Your task to perform on an android device: What time is it in Tokyo? Image 0: 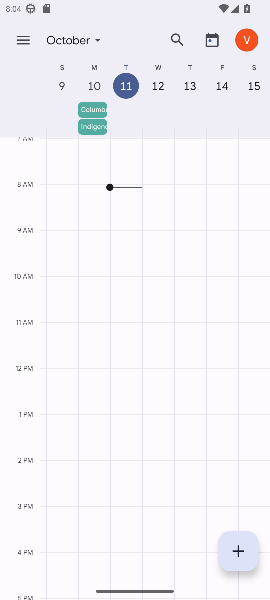
Step 0: press home button
Your task to perform on an android device: What time is it in Tokyo? Image 1: 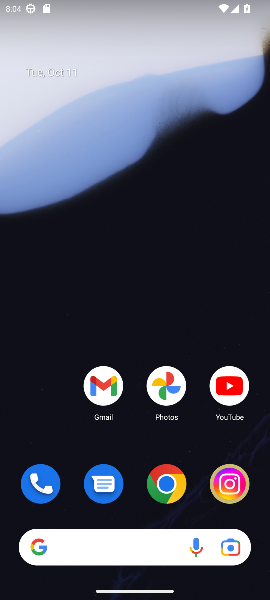
Step 1: click (170, 484)
Your task to perform on an android device: What time is it in Tokyo? Image 2: 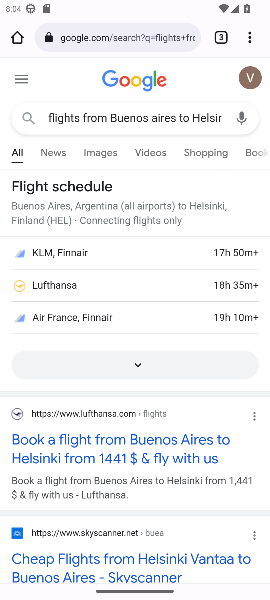
Step 2: click (176, 32)
Your task to perform on an android device: What time is it in Tokyo? Image 3: 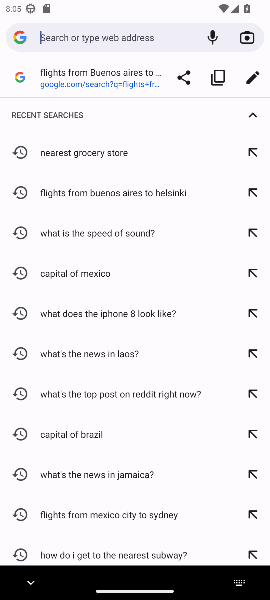
Step 3: click (134, 36)
Your task to perform on an android device: What time is it in Tokyo? Image 4: 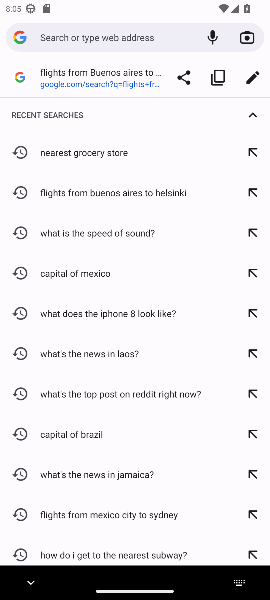
Step 4: type "time is it in Tokyo"
Your task to perform on an android device: What time is it in Tokyo? Image 5: 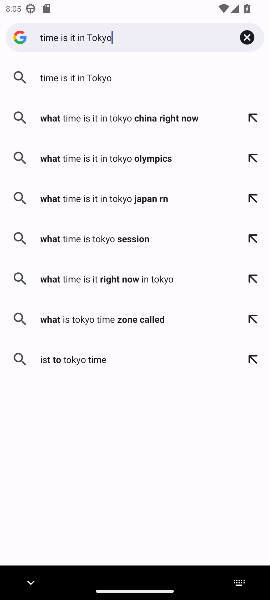
Step 5: click (98, 76)
Your task to perform on an android device: What time is it in Tokyo? Image 6: 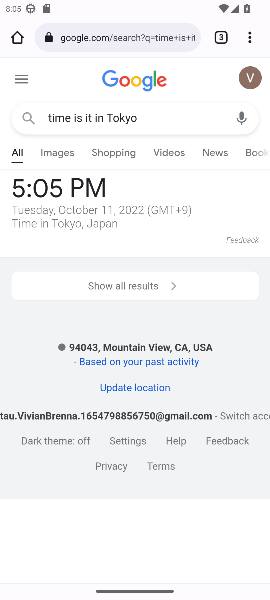
Step 6: task complete